Your task to perform on an android device: open app "Facebook Messenger" (install if not already installed), go to login, and select forgot password Image 0: 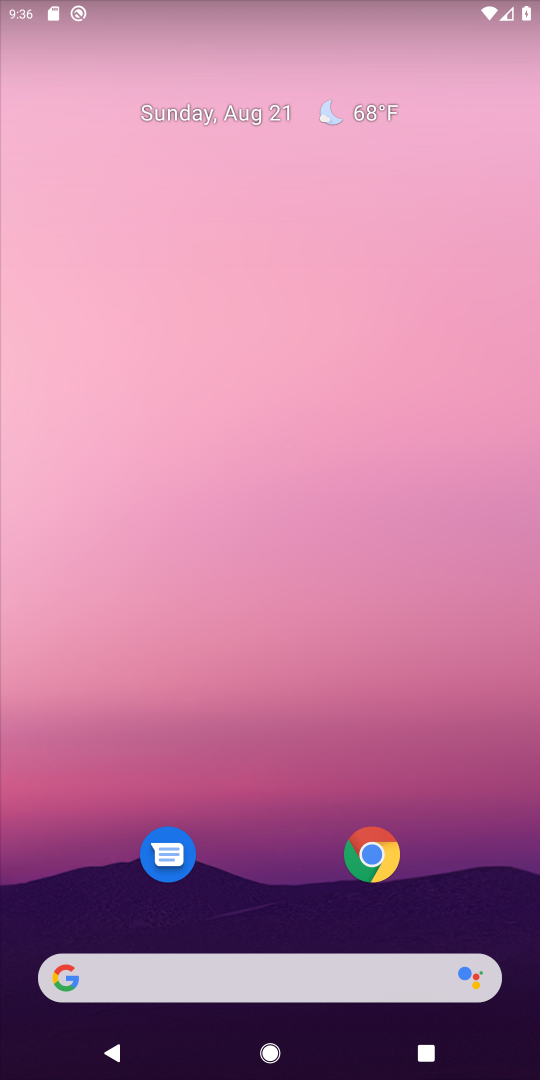
Step 0: drag from (301, 922) to (342, 170)
Your task to perform on an android device: open app "Facebook Messenger" (install if not already installed), go to login, and select forgot password Image 1: 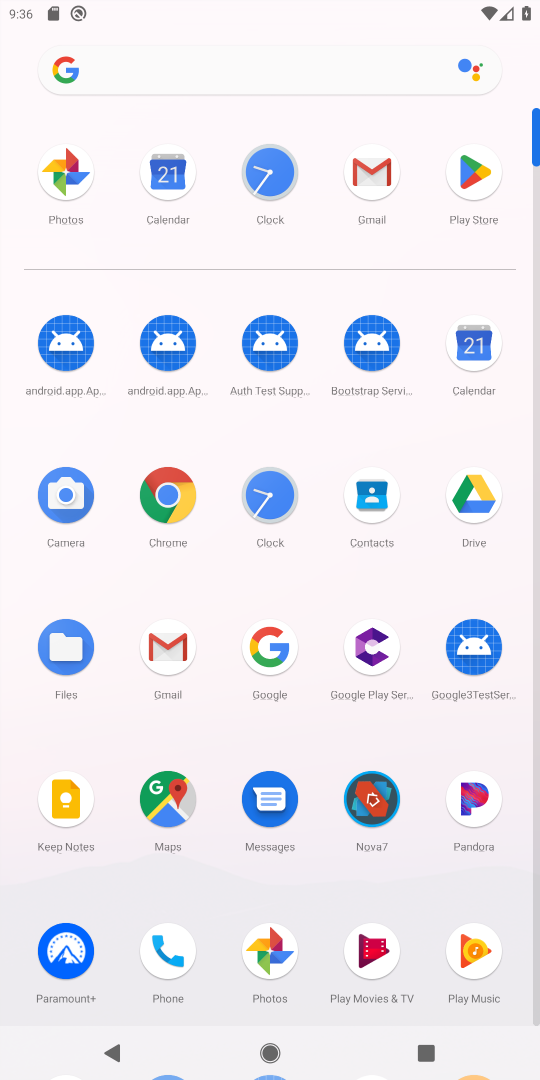
Step 1: click (458, 196)
Your task to perform on an android device: open app "Facebook Messenger" (install if not already installed), go to login, and select forgot password Image 2: 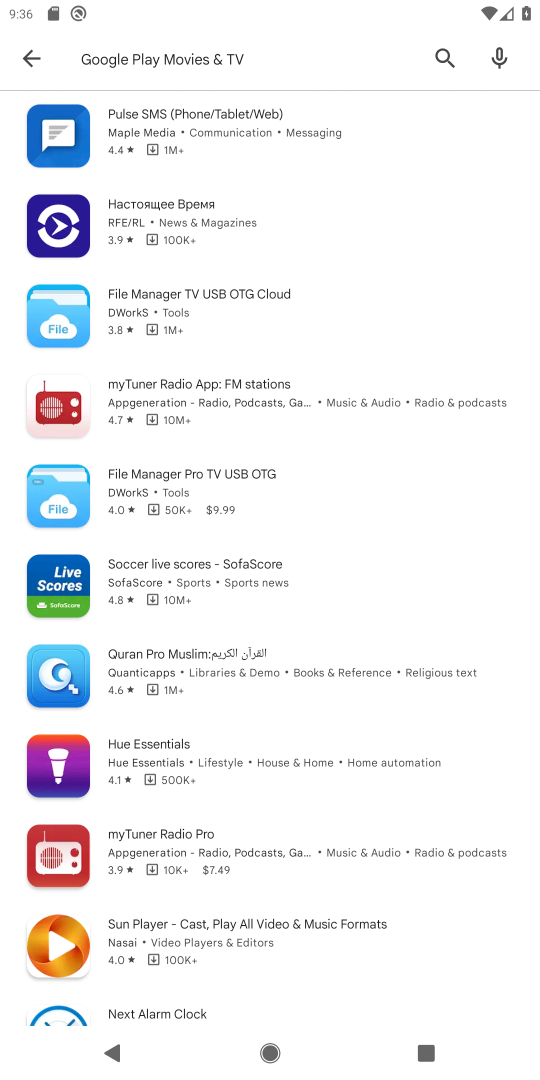
Step 2: click (440, 74)
Your task to perform on an android device: open app "Facebook Messenger" (install if not already installed), go to login, and select forgot password Image 3: 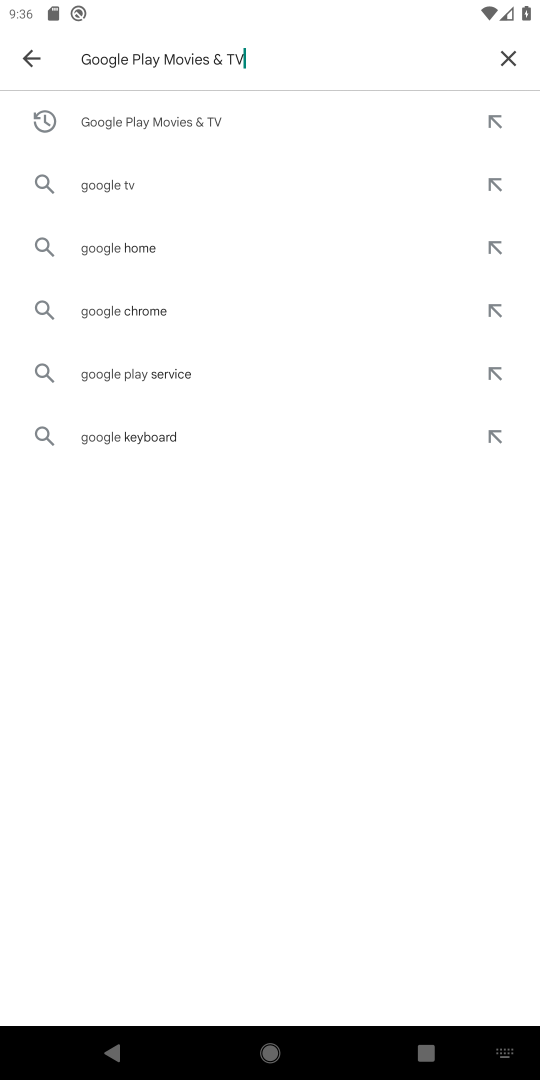
Step 3: click (509, 68)
Your task to perform on an android device: open app "Facebook Messenger" (install if not already installed), go to login, and select forgot password Image 4: 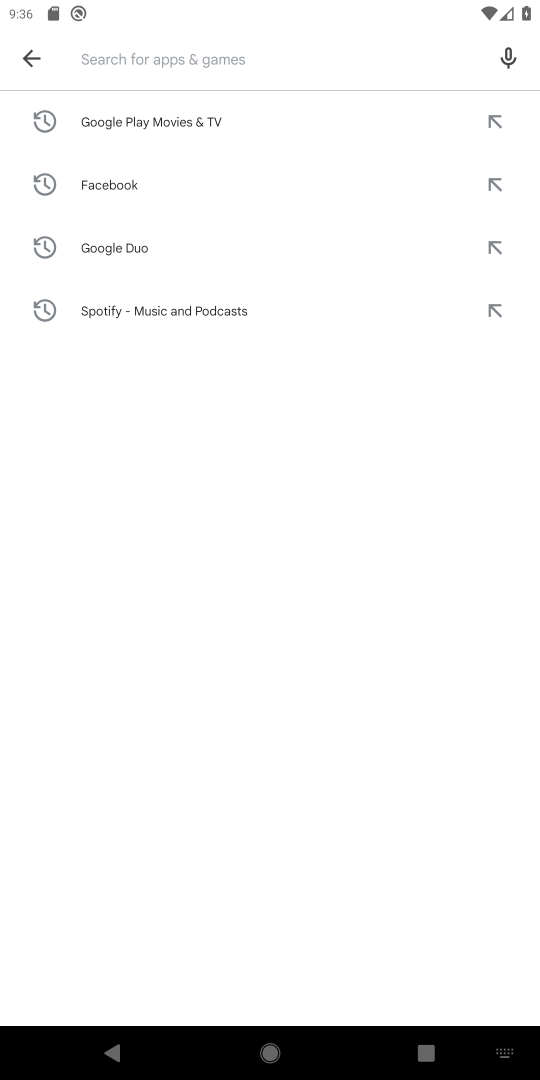
Step 4: type "facebook "
Your task to perform on an android device: open app "Facebook Messenger" (install if not already installed), go to login, and select forgot password Image 5: 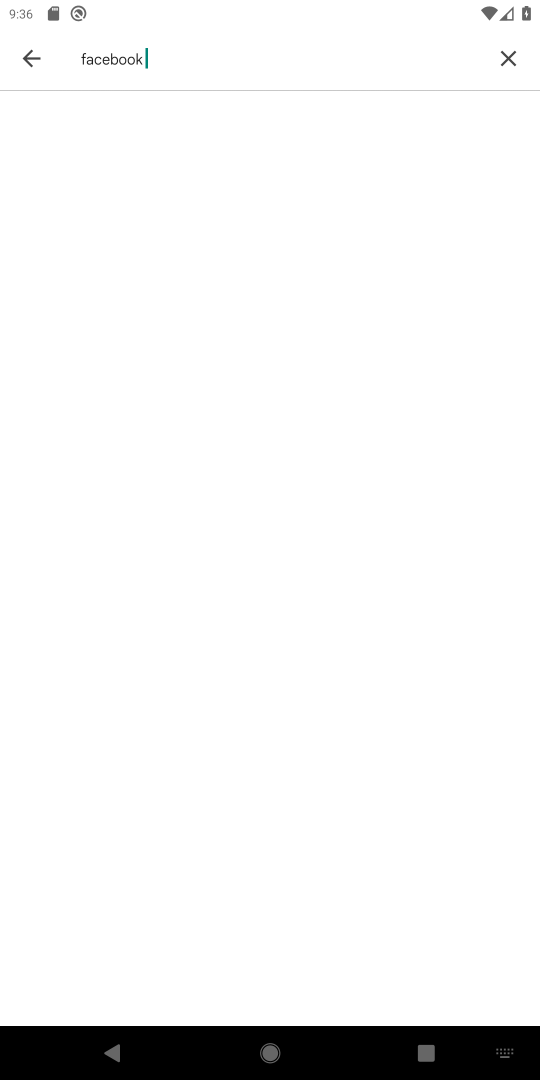
Step 5: task complete